Your task to perform on an android device: change notifications settings Image 0: 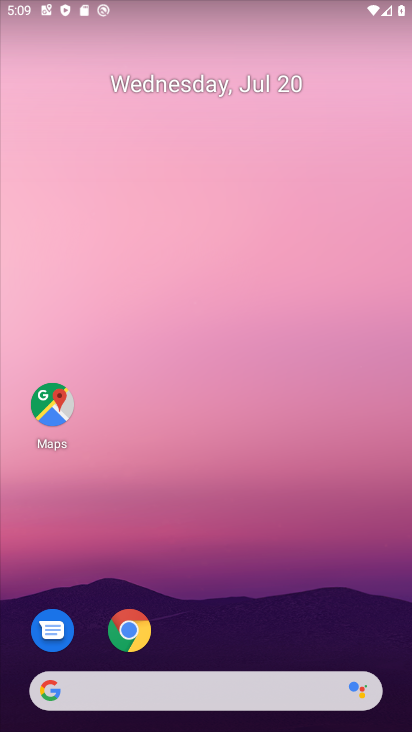
Step 0: drag from (291, 673) to (385, 52)
Your task to perform on an android device: change notifications settings Image 1: 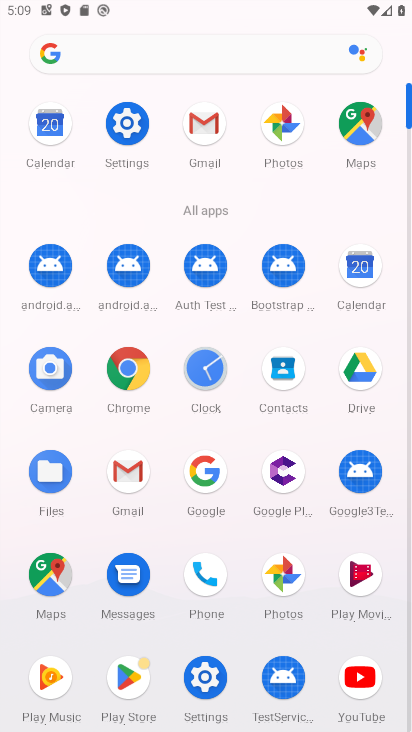
Step 1: click (126, 126)
Your task to perform on an android device: change notifications settings Image 2: 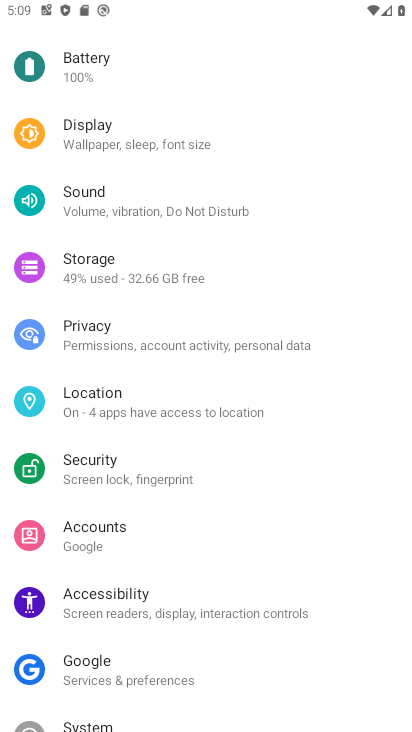
Step 2: drag from (191, 161) to (223, 448)
Your task to perform on an android device: change notifications settings Image 3: 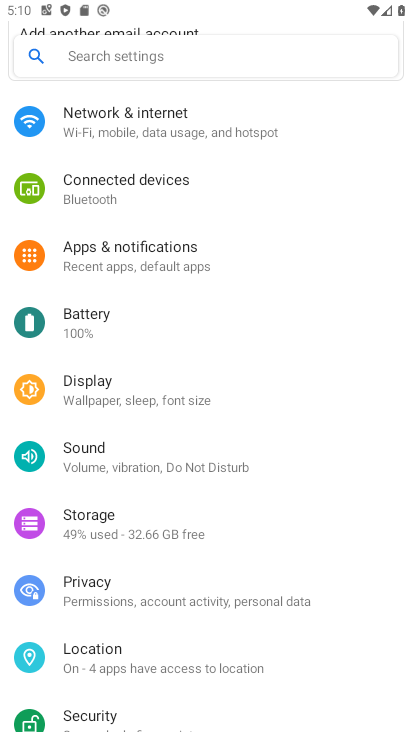
Step 3: click (190, 256)
Your task to perform on an android device: change notifications settings Image 4: 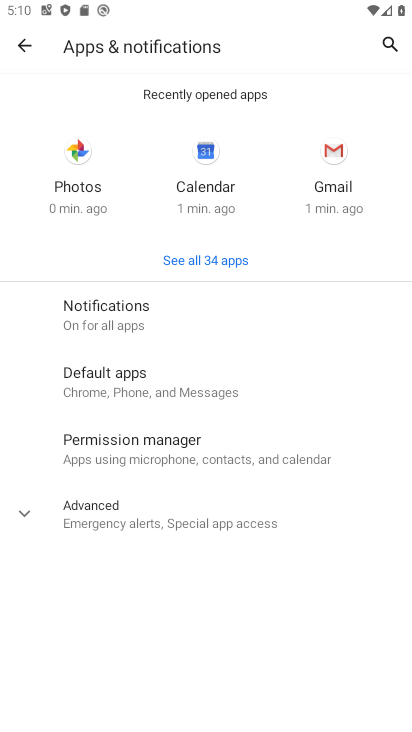
Step 4: click (136, 309)
Your task to perform on an android device: change notifications settings Image 5: 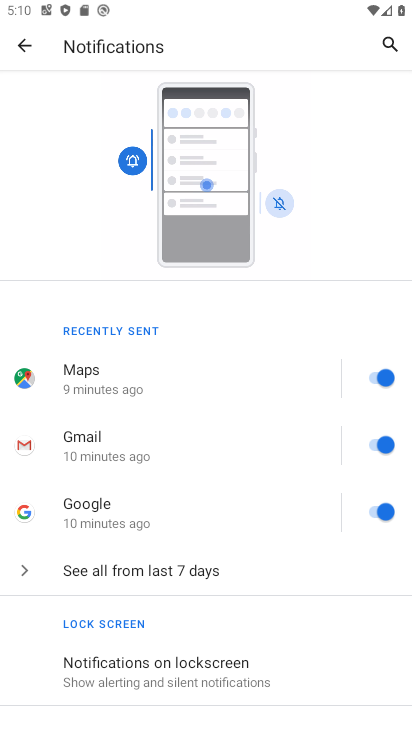
Step 5: click (383, 382)
Your task to perform on an android device: change notifications settings Image 6: 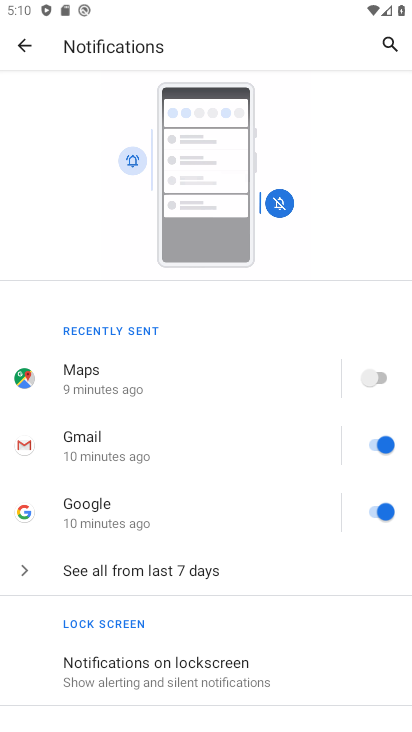
Step 6: task complete